Your task to perform on an android device: empty trash in the gmail app Image 0: 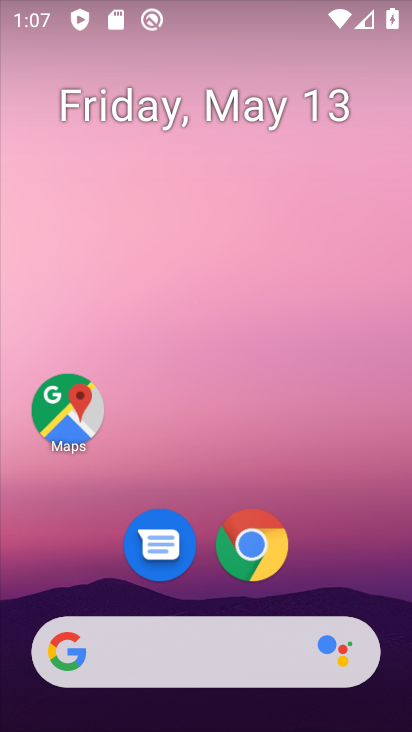
Step 0: drag from (341, 538) to (239, 71)
Your task to perform on an android device: empty trash in the gmail app Image 1: 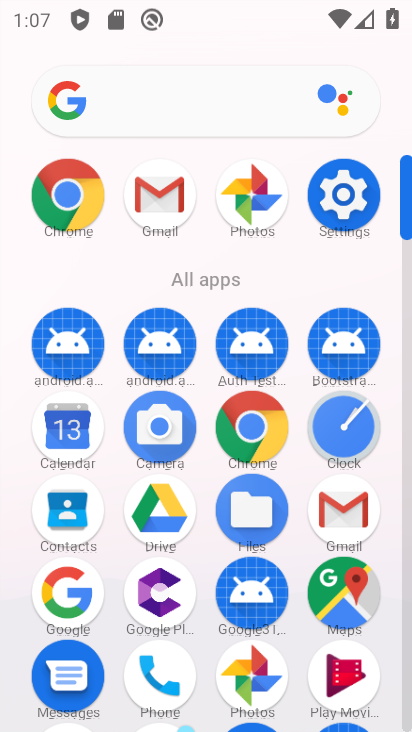
Step 1: click (353, 516)
Your task to perform on an android device: empty trash in the gmail app Image 2: 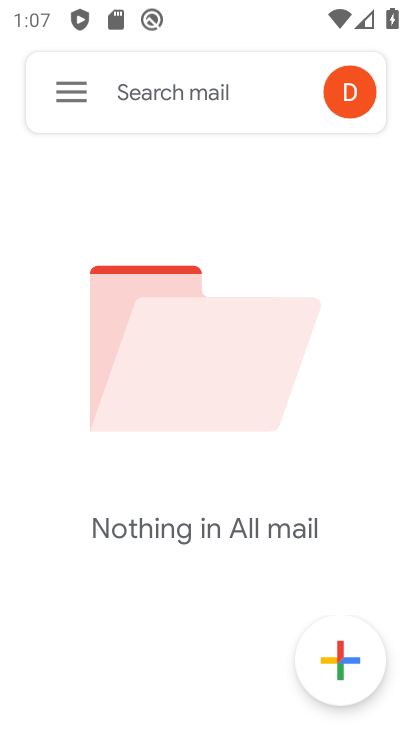
Step 2: click (68, 116)
Your task to perform on an android device: empty trash in the gmail app Image 3: 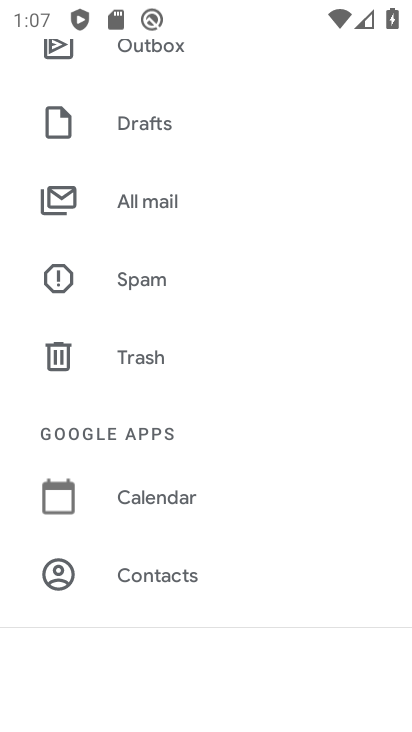
Step 3: click (182, 349)
Your task to perform on an android device: empty trash in the gmail app Image 4: 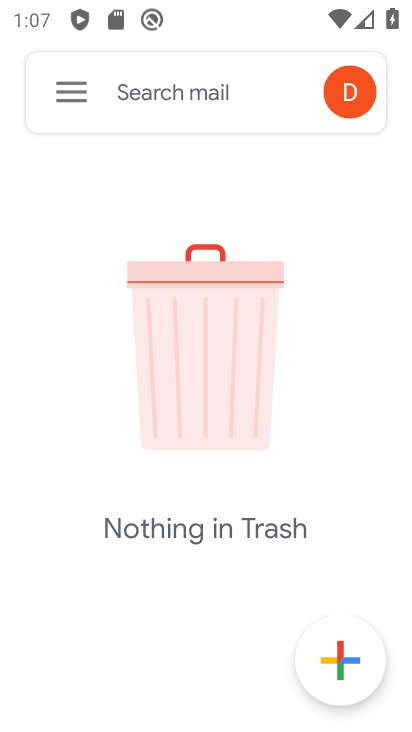
Step 4: task complete